Your task to perform on an android device: Go to eBay Image 0: 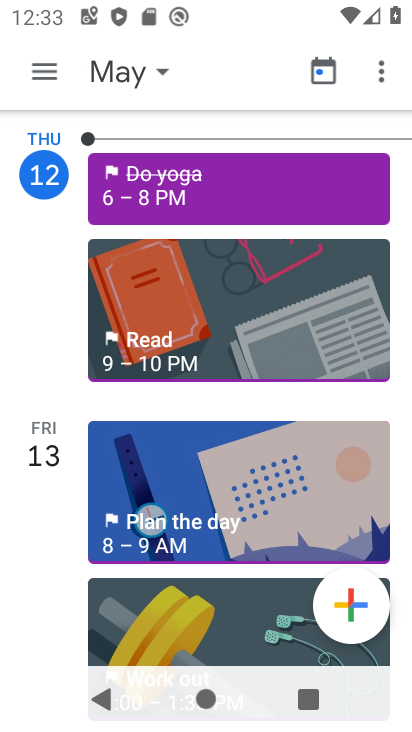
Step 0: press home button
Your task to perform on an android device: Go to eBay Image 1: 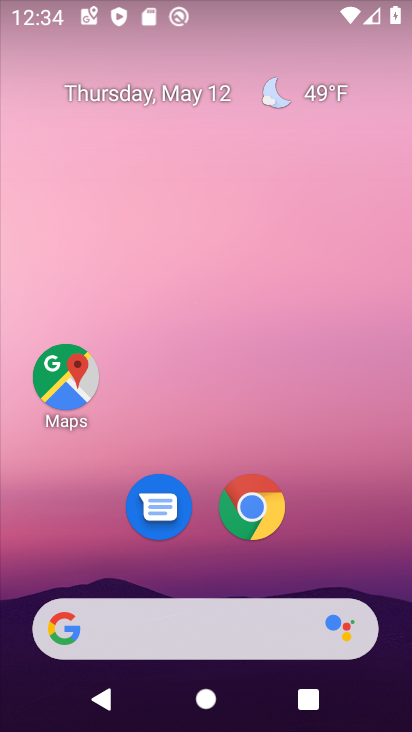
Step 1: click (244, 502)
Your task to perform on an android device: Go to eBay Image 2: 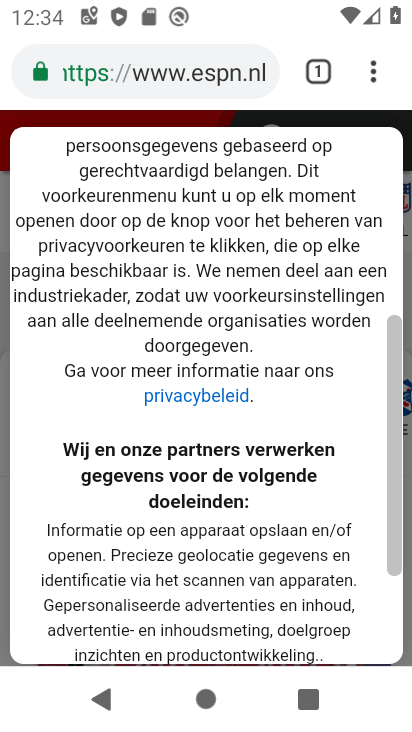
Step 2: click (175, 74)
Your task to perform on an android device: Go to eBay Image 3: 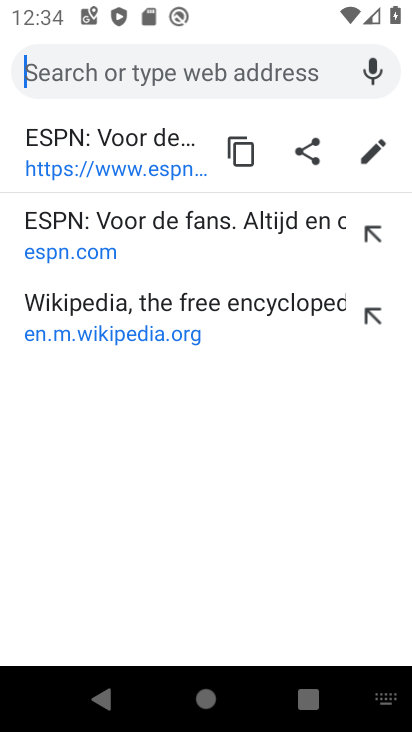
Step 3: type "ebay"
Your task to perform on an android device: Go to eBay Image 4: 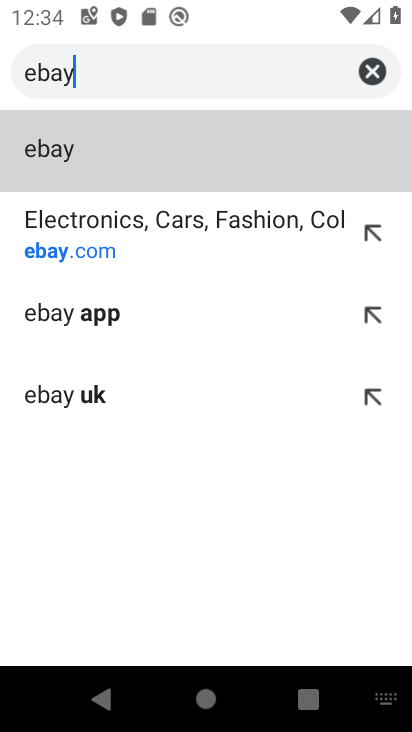
Step 4: click (75, 144)
Your task to perform on an android device: Go to eBay Image 5: 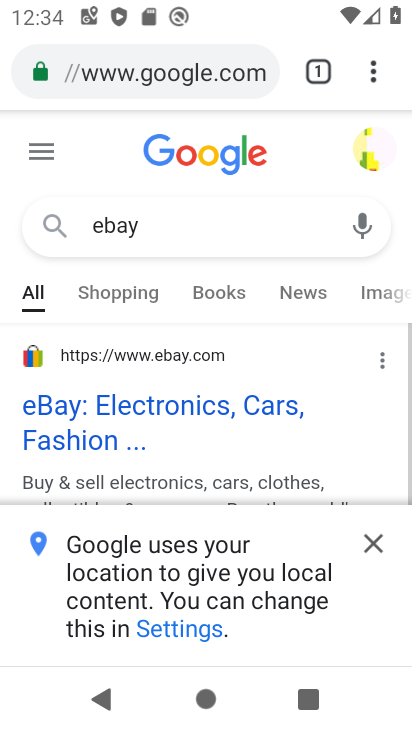
Step 5: task complete